Your task to perform on an android device: Open the stopwatch Image 0: 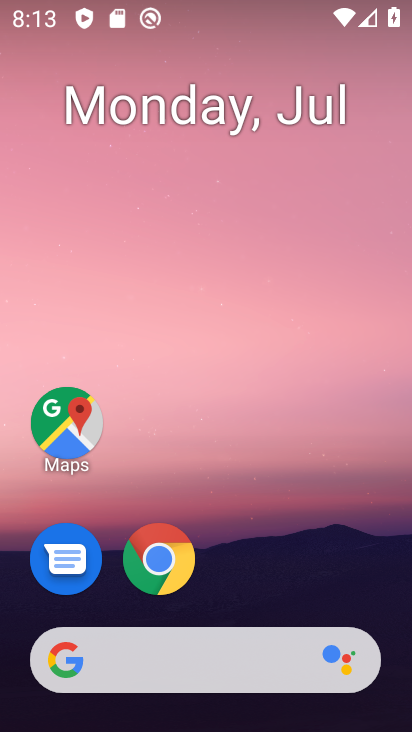
Step 0: drag from (381, 613) to (337, 234)
Your task to perform on an android device: Open the stopwatch Image 1: 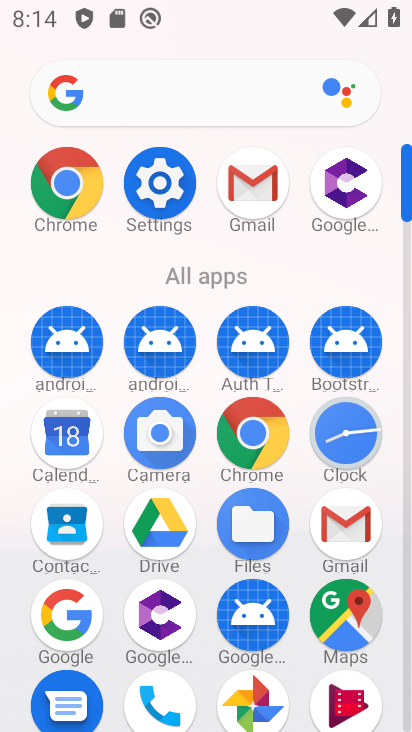
Step 1: click (361, 440)
Your task to perform on an android device: Open the stopwatch Image 2: 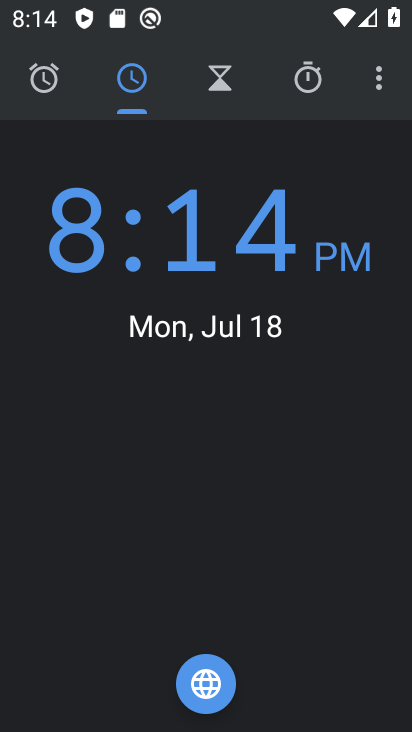
Step 2: click (317, 84)
Your task to perform on an android device: Open the stopwatch Image 3: 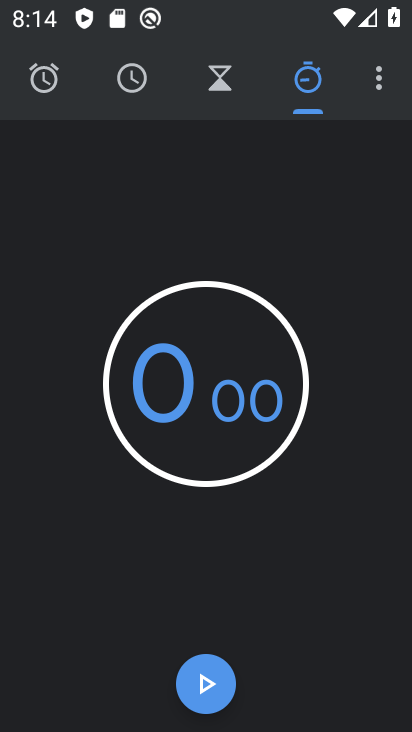
Step 3: click (317, 84)
Your task to perform on an android device: Open the stopwatch Image 4: 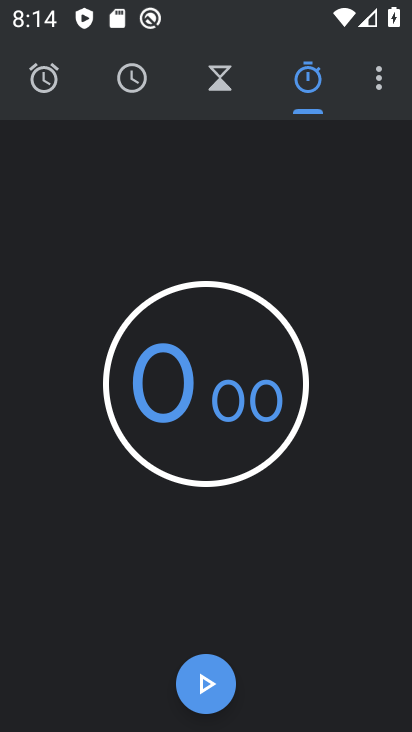
Step 4: task complete